Your task to perform on an android device: Go to internet settings Image 0: 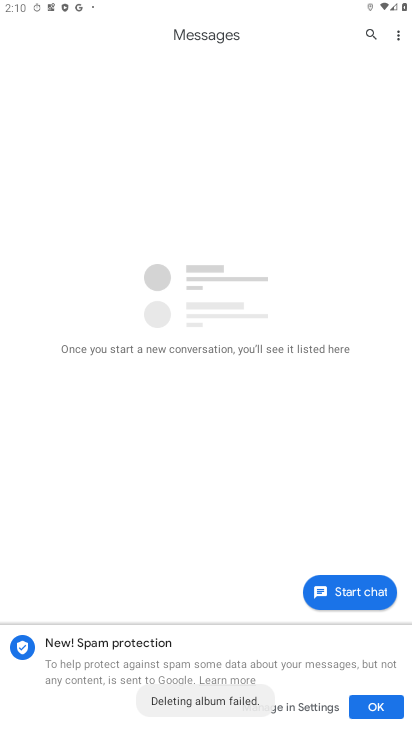
Step 0: press home button
Your task to perform on an android device: Go to internet settings Image 1: 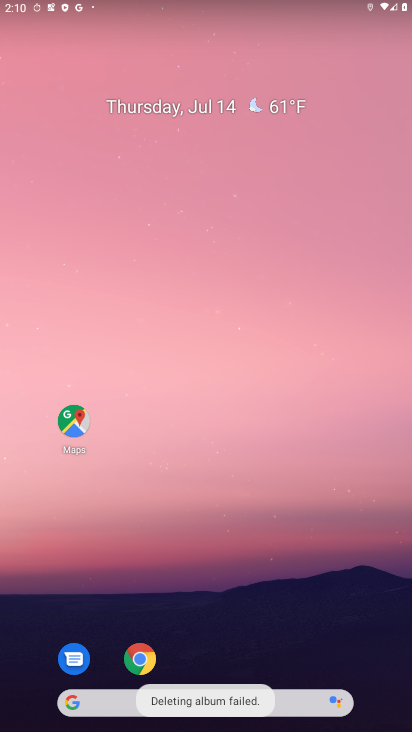
Step 1: drag from (241, 651) to (151, 64)
Your task to perform on an android device: Go to internet settings Image 2: 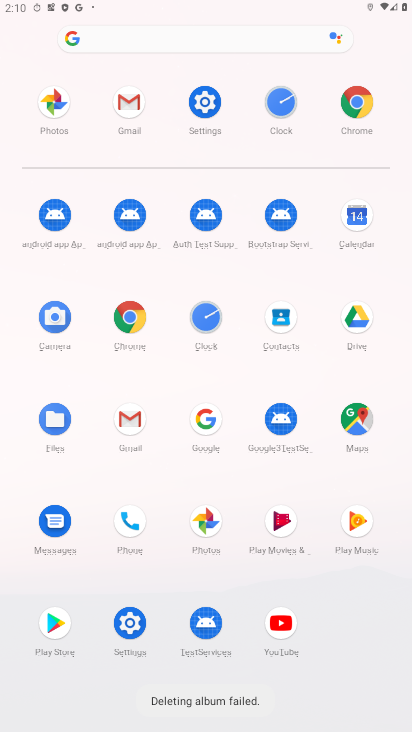
Step 2: click (213, 106)
Your task to perform on an android device: Go to internet settings Image 3: 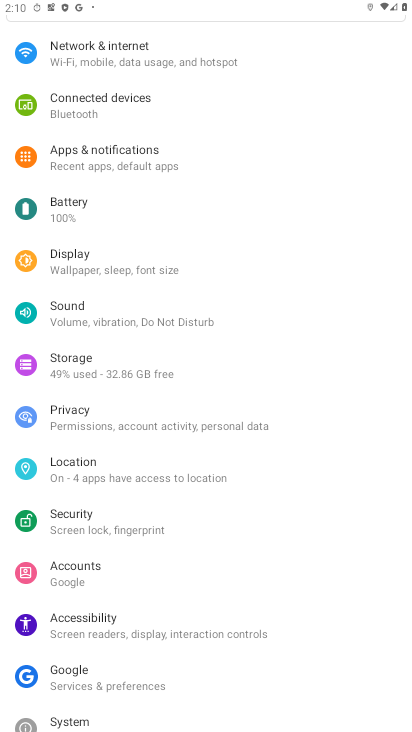
Step 3: click (95, 68)
Your task to perform on an android device: Go to internet settings Image 4: 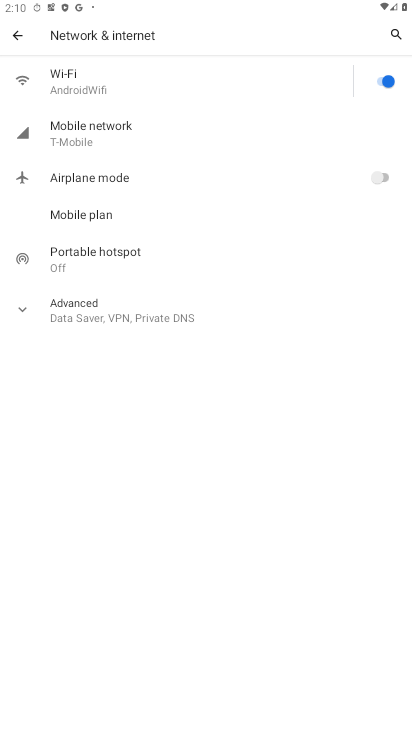
Step 4: click (93, 114)
Your task to perform on an android device: Go to internet settings Image 5: 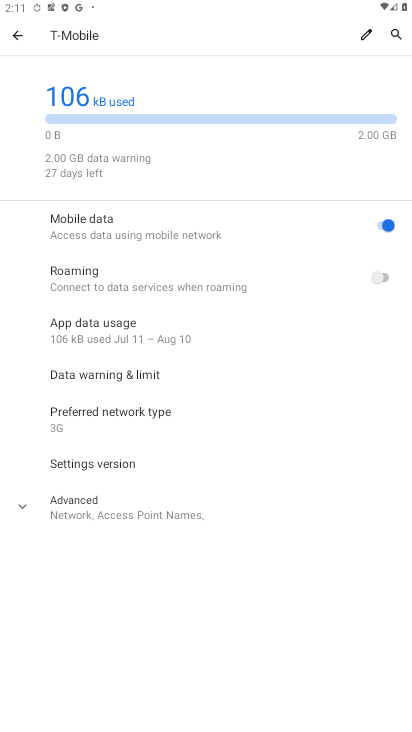
Step 5: task complete